Your task to perform on an android device: turn on location history Image 0: 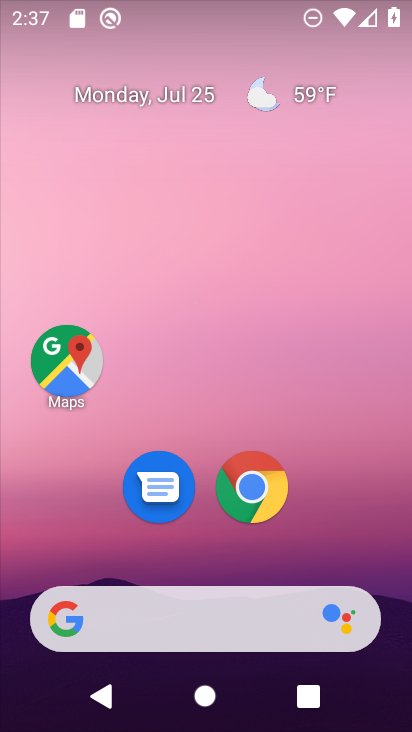
Step 0: drag from (138, 575) to (285, 62)
Your task to perform on an android device: turn on location history Image 1: 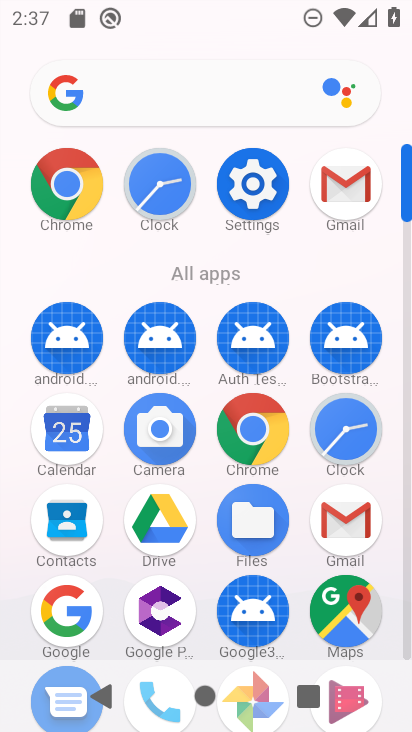
Step 1: click (252, 180)
Your task to perform on an android device: turn on location history Image 2: 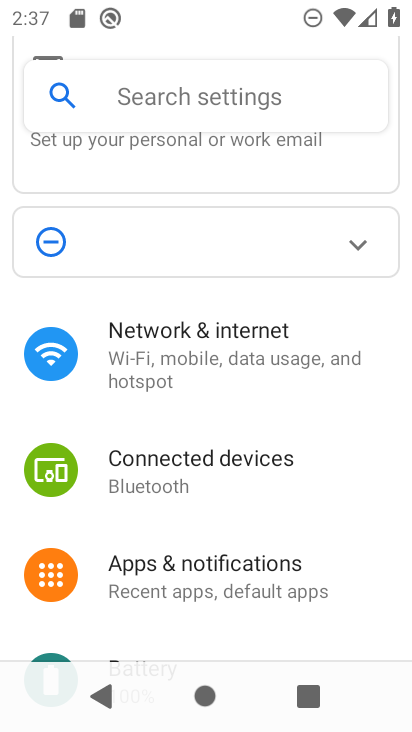
Step 2: drag from (220, 596) to (340, 27)
Your task to perform on an android device: turn on location history Image 3: 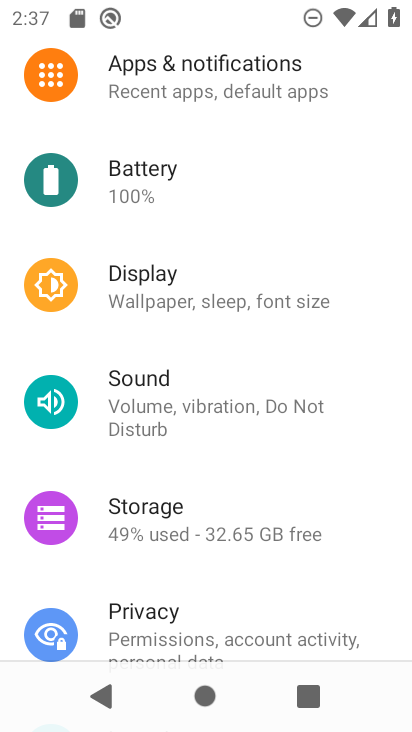
Step 3: drag from (159, 591) to (309, 6)
Your task to perform on an android device: turn on location history Image 4: 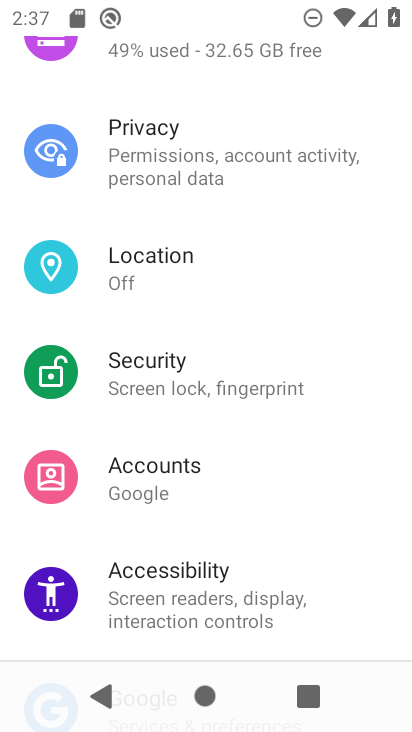
Step 4: click (113, 271)
Your task to perform on an android device: turn on location history Image 5: 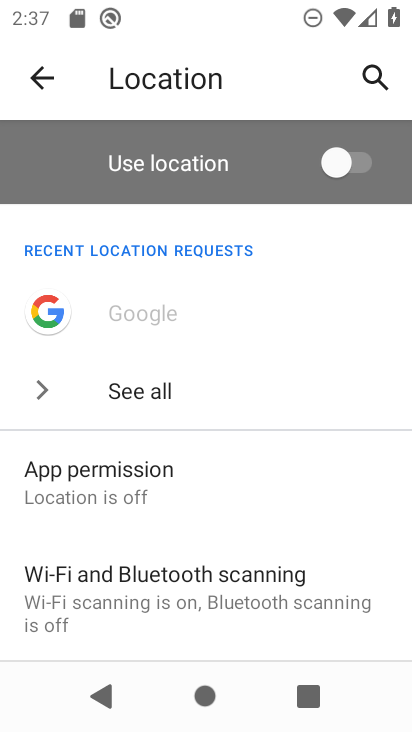
Step 5: drag from (175, 625) to (285, 36)
Your task to perform on an android device: turn on location history Image 6: 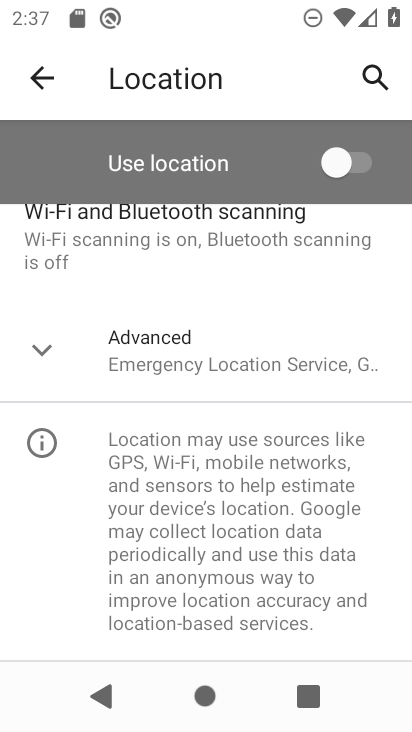
Step 6: click (154, 353)
Your task to perform on an android device: turn on location history Image 7: 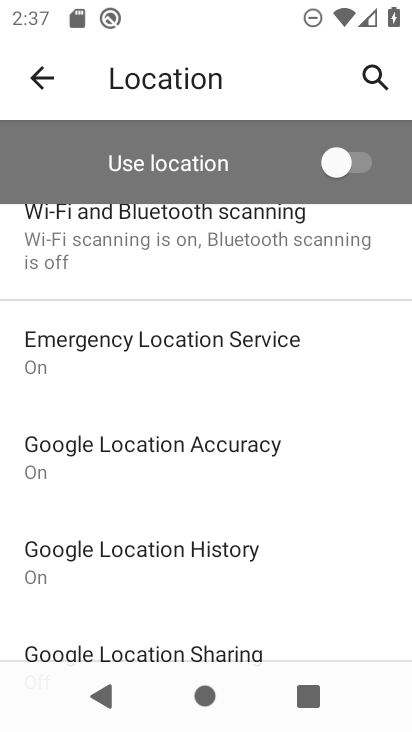
Step 7: click (170, 577)
Your task to perform on an android device: turn on location history Image 8: 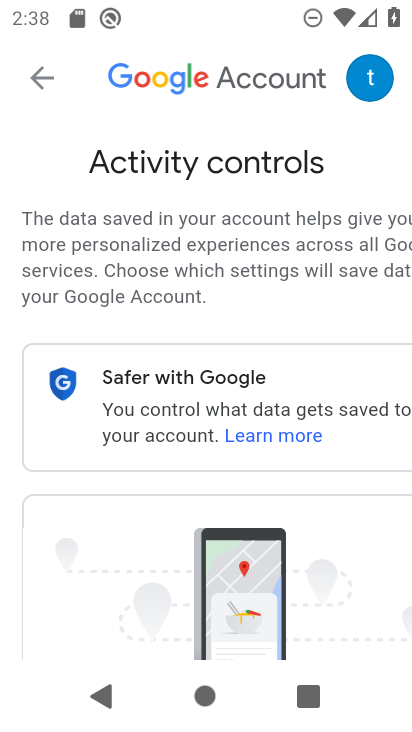
Step 8: drag from (269, 573) to (219, 34)
Your task to perform on an android device: turn on location history Image 9: 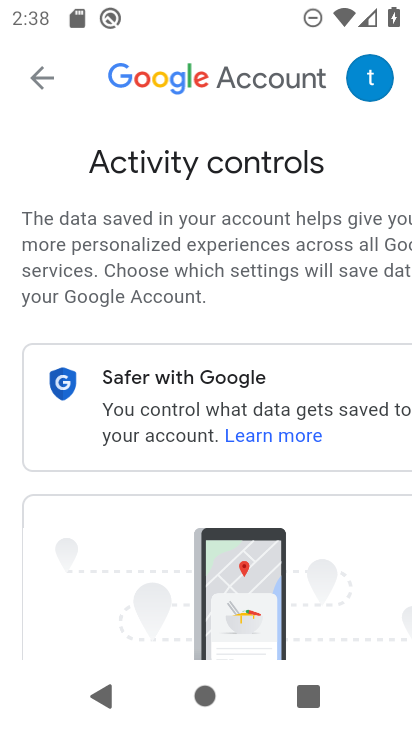
Step 9: drag from (251, 611) to (294, 68)
Your task to perform on an android device: turn on location history Image 10: 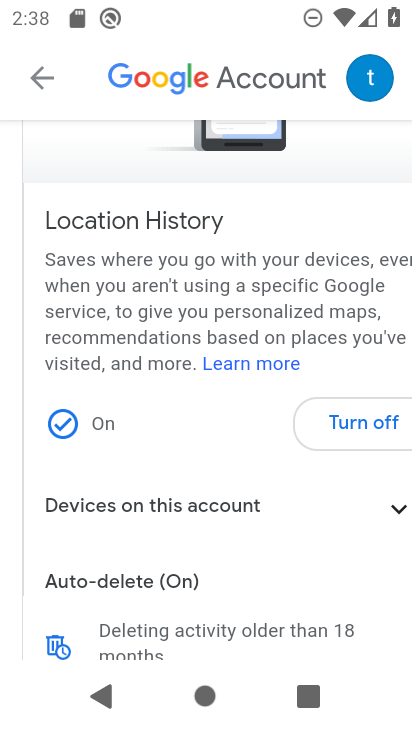
Step 10: click (368, 415)
Your task to perform on an android device: turn on location history Image 11: 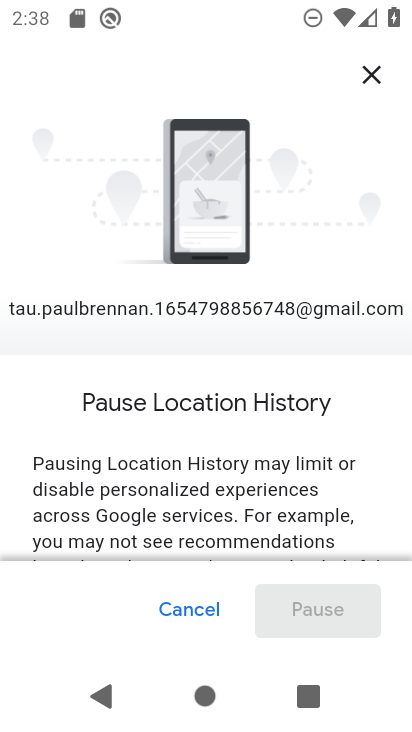
Step 11: click (366, 71)
Your task to perform on an android device: turn on location history Image 12: 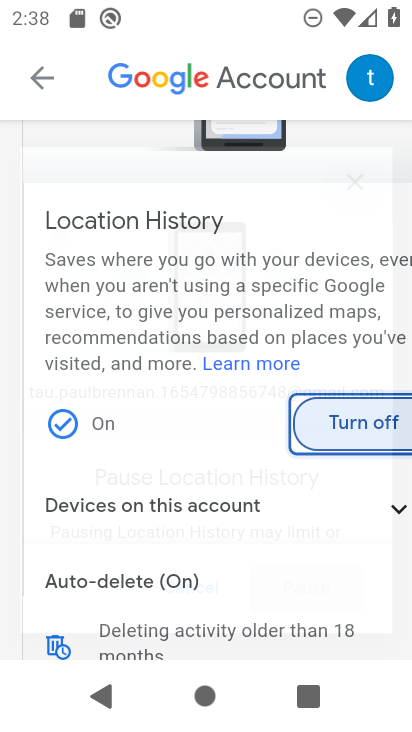
Step 12: task complete